Your task to perform on an android device: Open eBay Image 0: 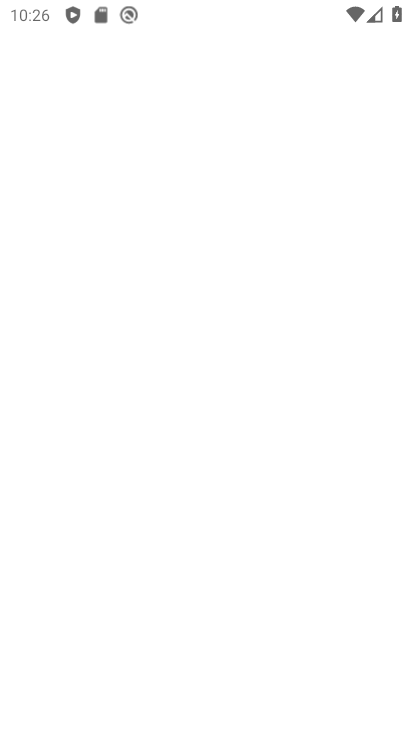
Step 0: drag from (370, 529) to (305, 92)
Your task to perform on an android device: Open eBay Image 1: 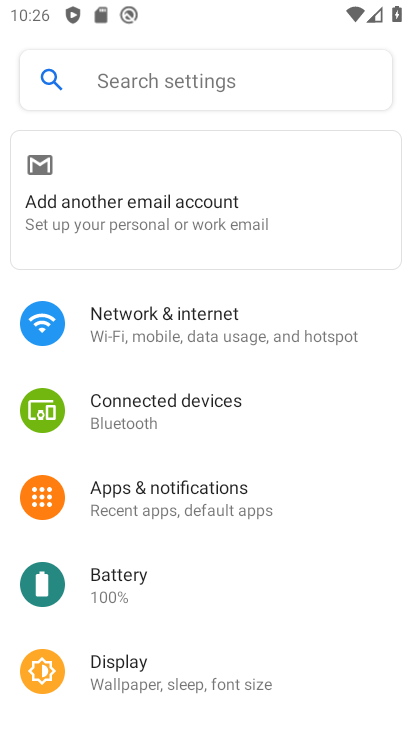
Step 1: press back button
Your task to perform on an android device: Open eBay Image 2: 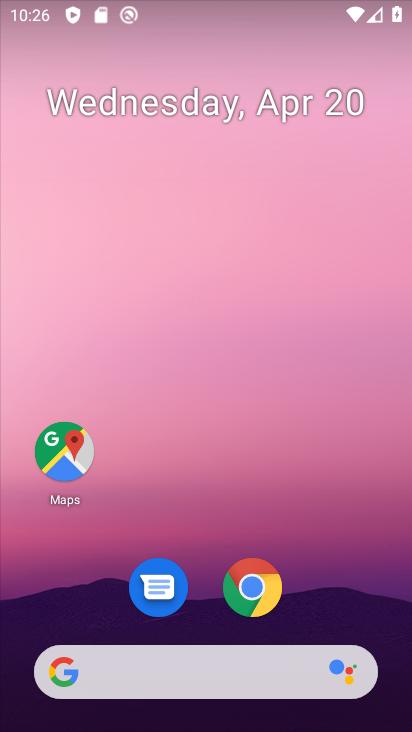
Step 2: click (255, 592)
Your task to perform on an android device: Open eBay Image 3: 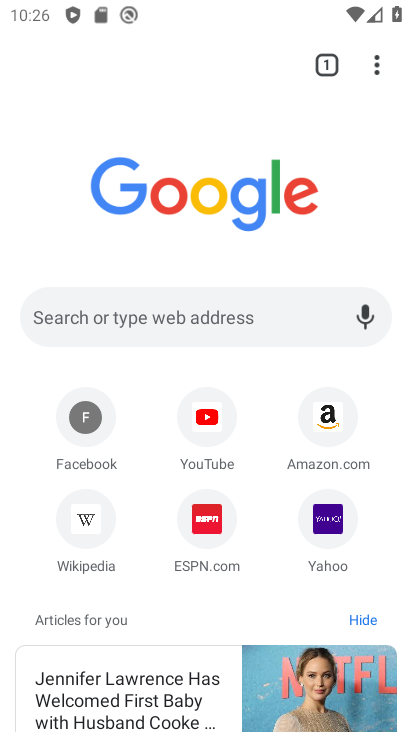
Step 3: click (211, 300)
Your task to perform on an android device: Open eBay Image 4: 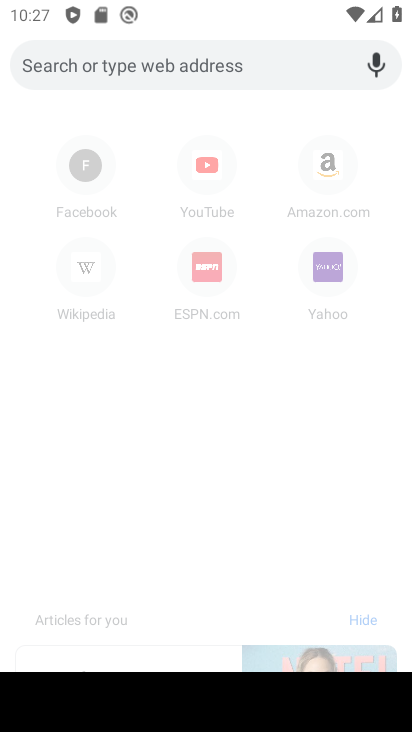
Step 4: type "eBay"
Your task to perform on an android device: Open eBay Image 5: 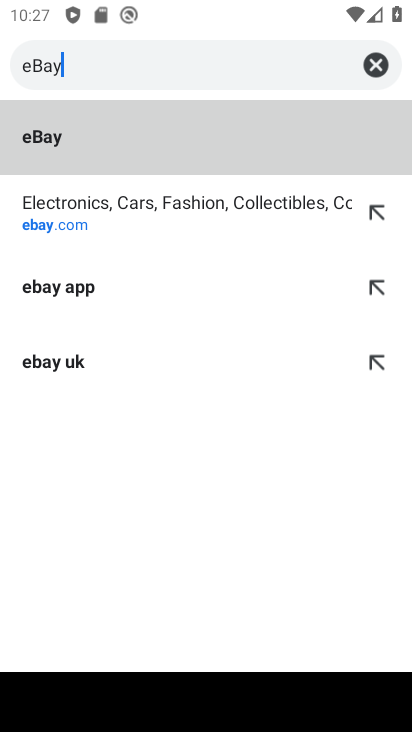
Step 5: type ""
Your task to perform on an android device: Open eBay Image 6: 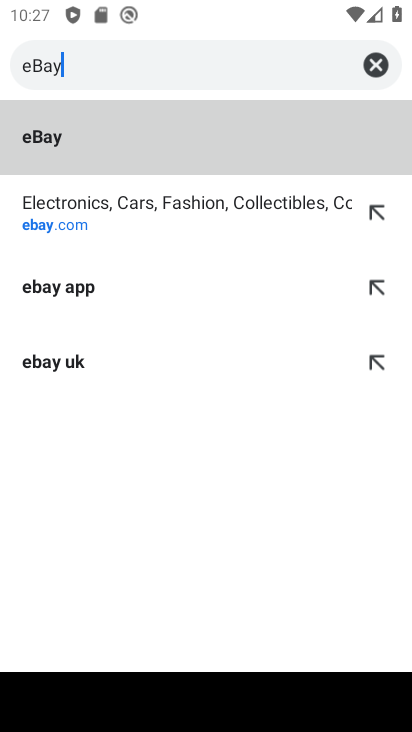
Step 6: click (126, 203)
Your task to perform on an android device: Open eBay Image 7: 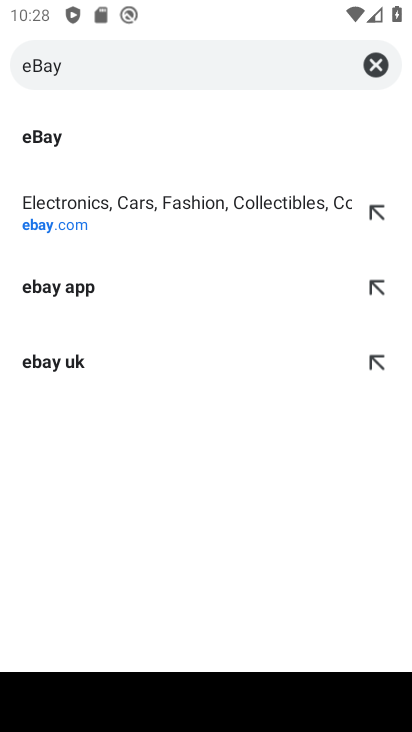
Step 7: click (106, 212)
Your task to perform on an android device: Open eBay Image 8: 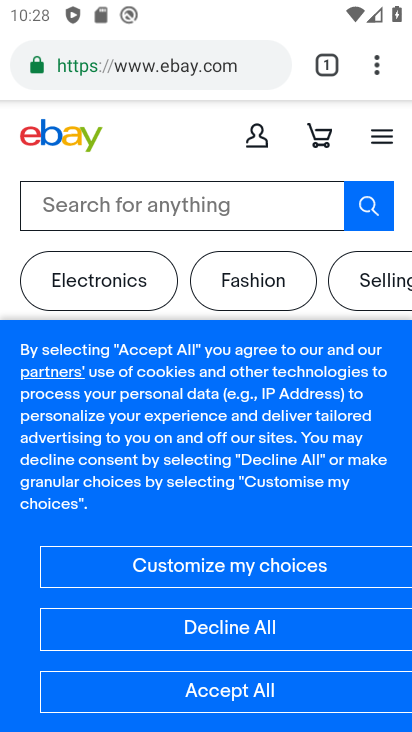
Step 8: task complete